Your task to perform on an android device: turn on location history Image 0: 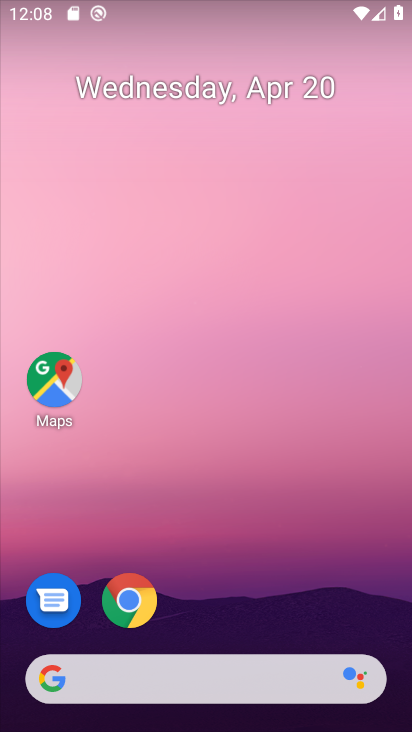
Step 0: drag from (340, 533) to (363, 145)
Your task to perform on an android device: turn on location history Image 1: 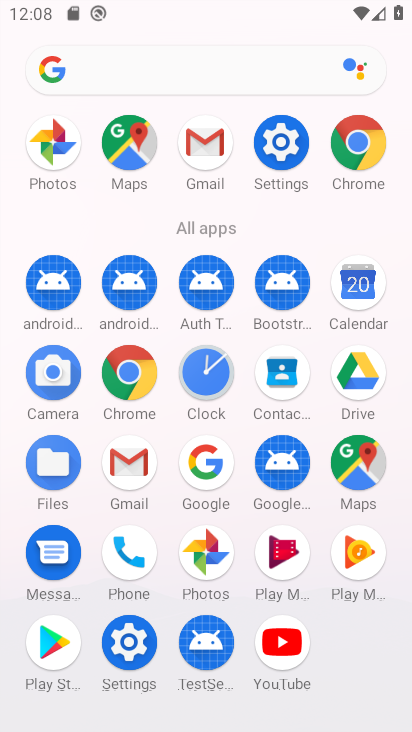
Step 1: click (282, 151)
Your task to perform on an android device: turn on location history Image 2: 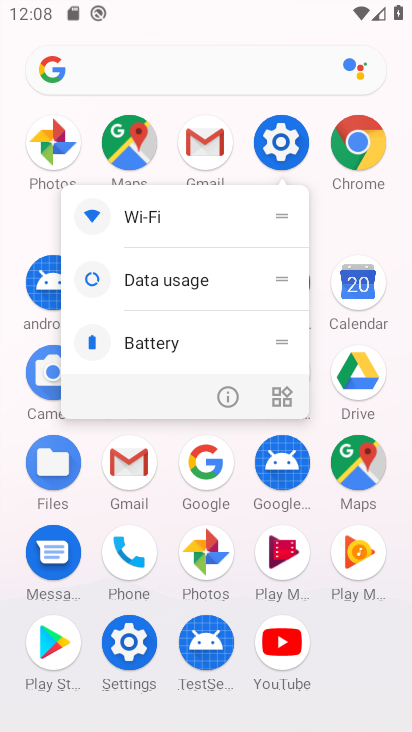
Step 2: click (282, 151)
Your task to perform on an android device: turn on location history Image 3: 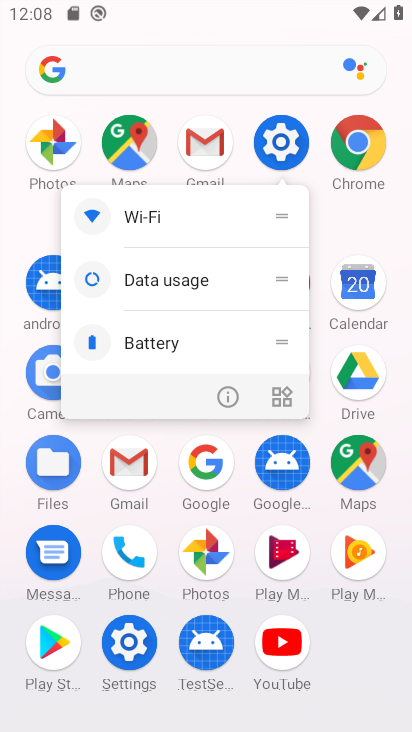
Step 3: click (282, 151)
Your task to perform on an android device: turn on location history Image 4: 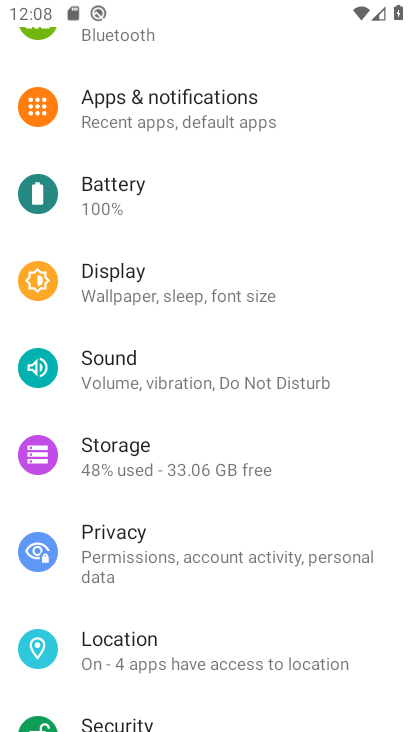
Step 4: click (195, 648)
Your task to perform on an android device: turn on location history Image 5: 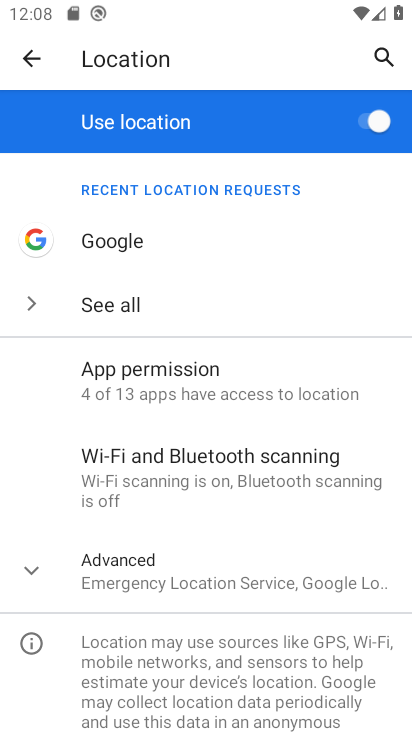
Step 5: click (186, 587)
Your task to perform on an android device: turn on location history Image 6: 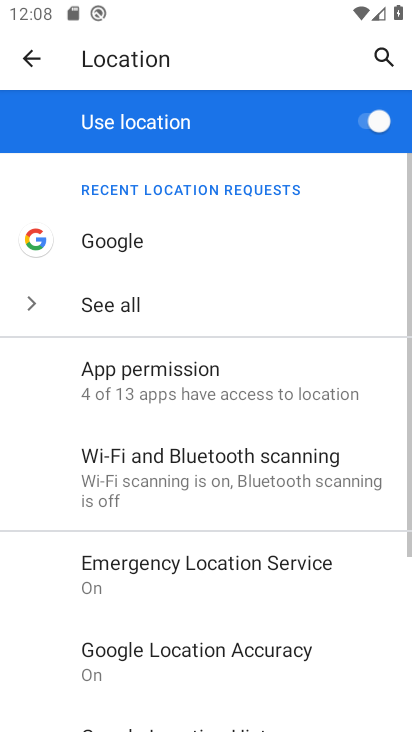
Step 6: drag from (245, 690) to (294, 382)
Your task to perform on an android device: turn on location history Image 7: 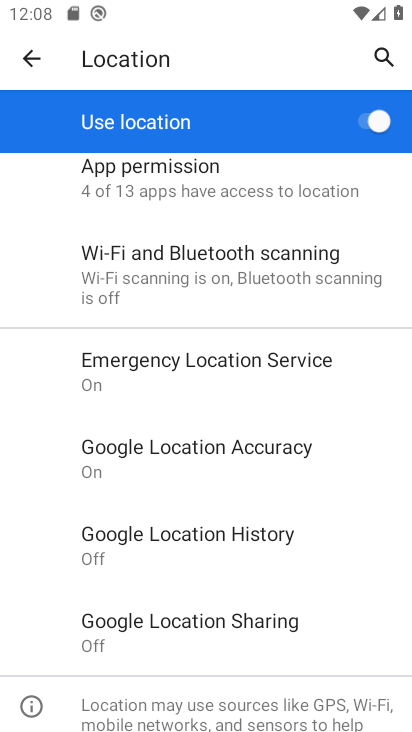
Step 7: click (140, 549)
Your task to perform on an android device: turn on location history Image 8: 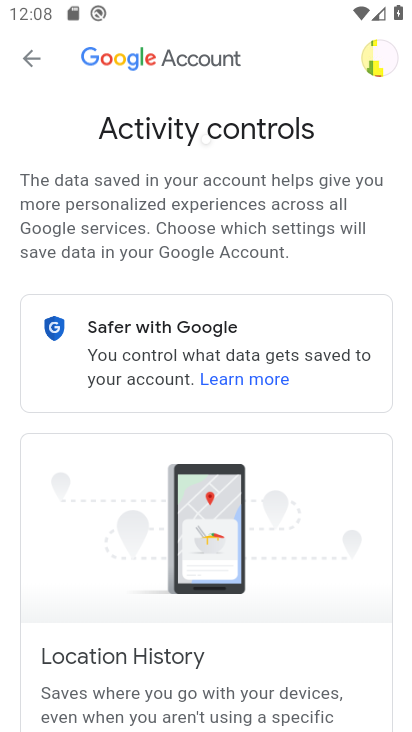
Step 8: drag from (295, 648) to (302, 207)
Your task to perform on an android device: turn on location history Image 9: 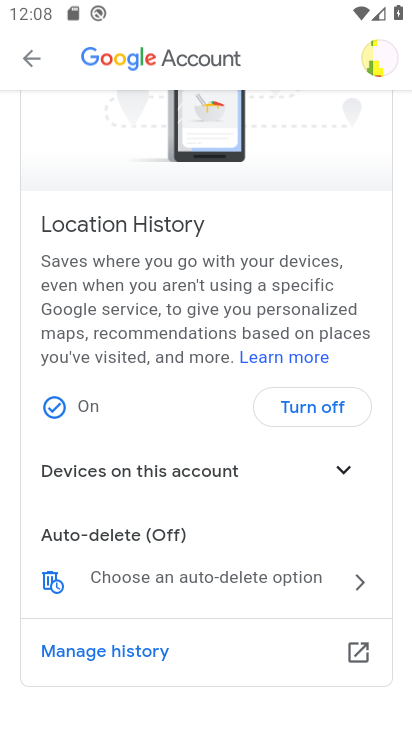
Step 9: click (289, 412)
Your task to perform on an android device: turn on location history Image 10: 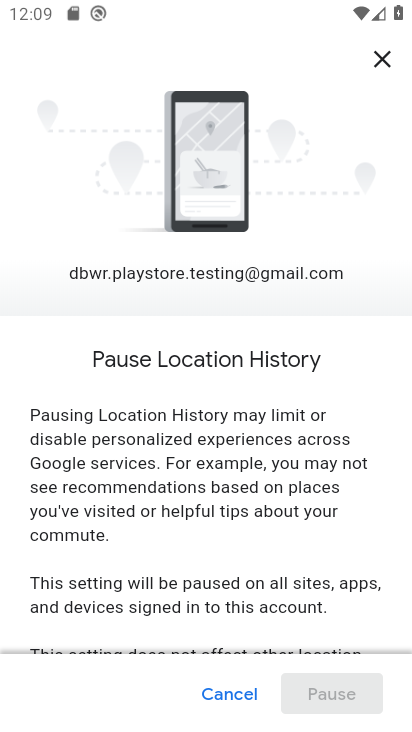
Step 10: task complete